Your task to perform on an android device: What's the weather today? Image 0: 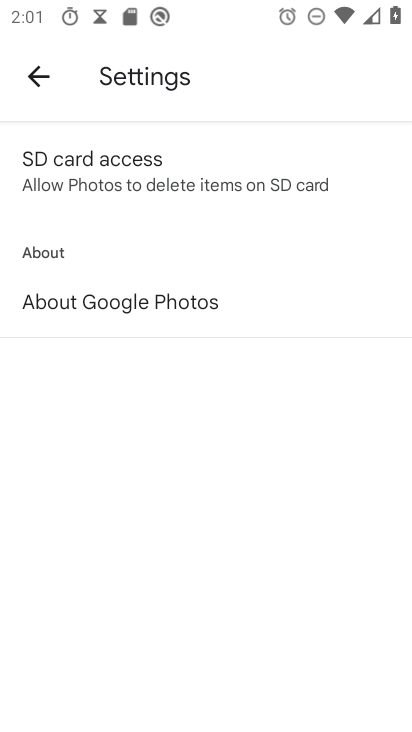
Step 0: press home button
Your task to perform on an android device: What's the weather today? Image 1: 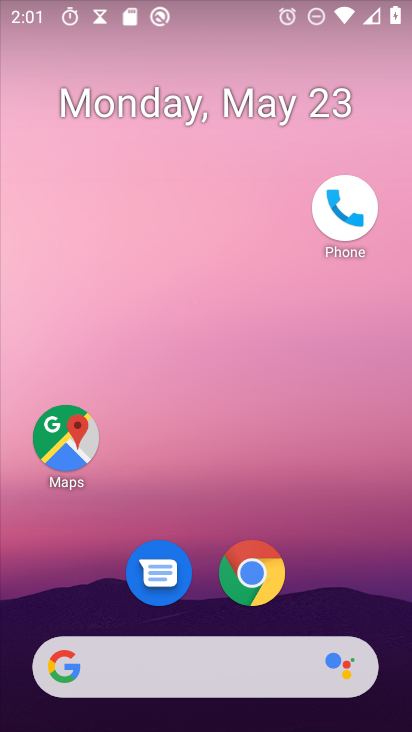
Step 1: click (77, 668)
Your task to perform on an android device: What's the weather today? Image 2: 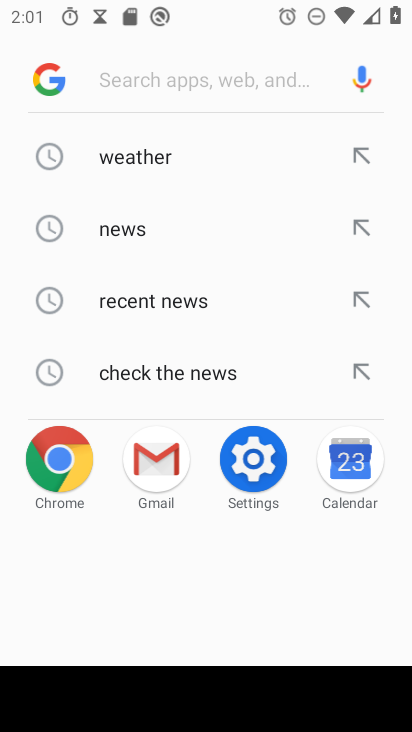
Step 2: click (145, 156)
Your task to perform on an android device: What's the weather today? Image 3: 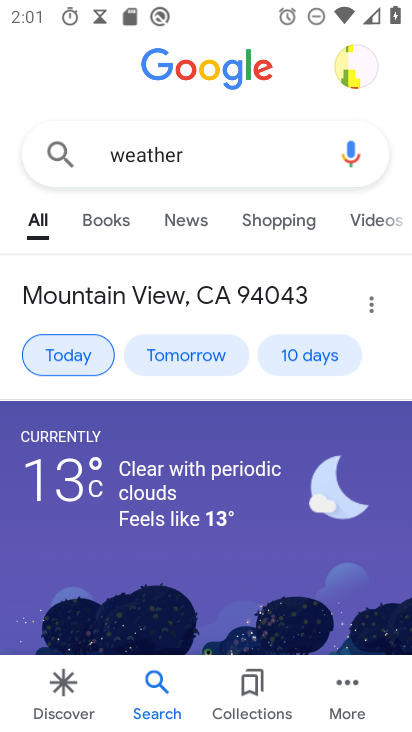
Step 3: task complete